Your task to perform on an android device: Open Android settings Image 0: 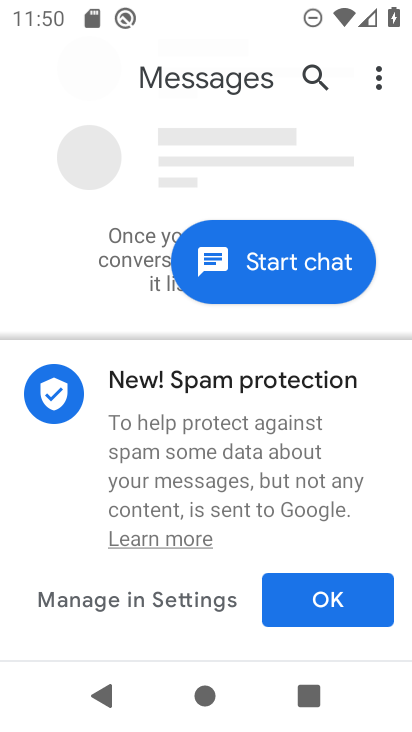
Step 0: press home button
Your task to perform on an android device: Open Android settings Image 1: 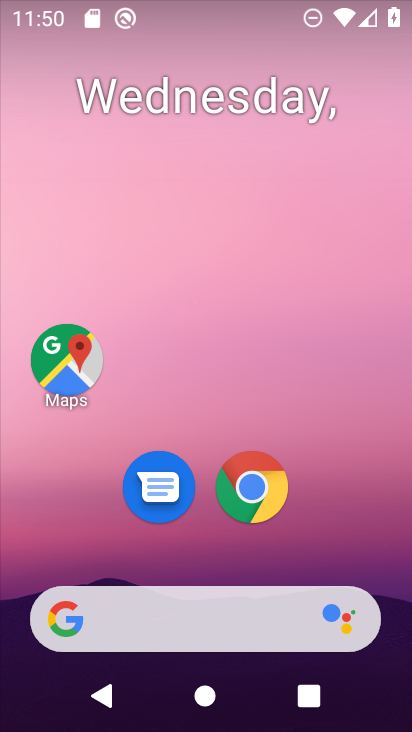
Step 1: drag from (330, 520) to (234, 170)
Your task to perform on an android device: Open Android settings Image 2: 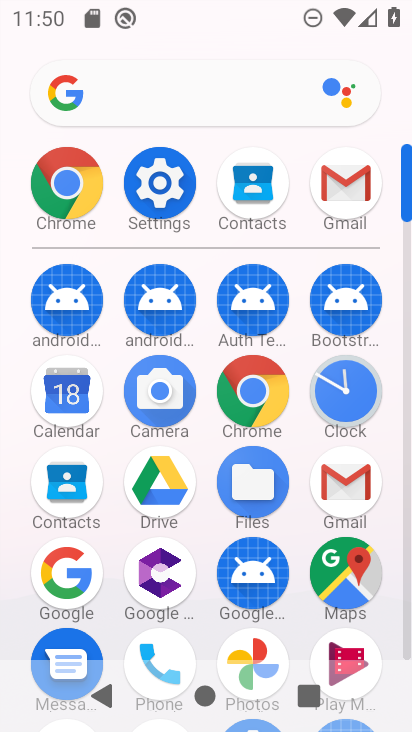
Step 2: click (163, 177)
Your task to perform on an android device: Open Android settings Image 3: 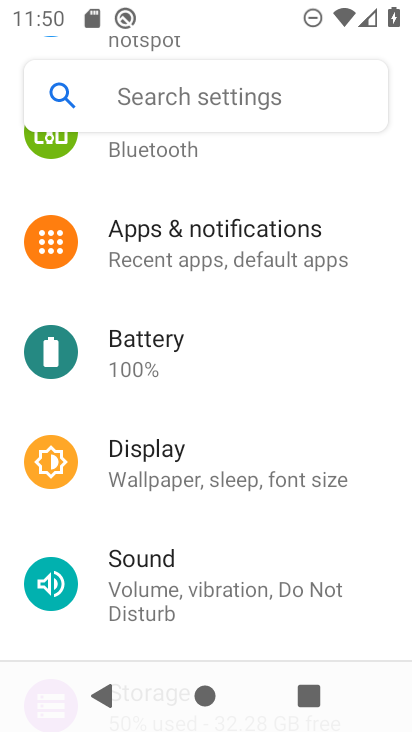
Step 3: task complete